Your task to perform on an android device: Open Maps and search for coffee Image 0: 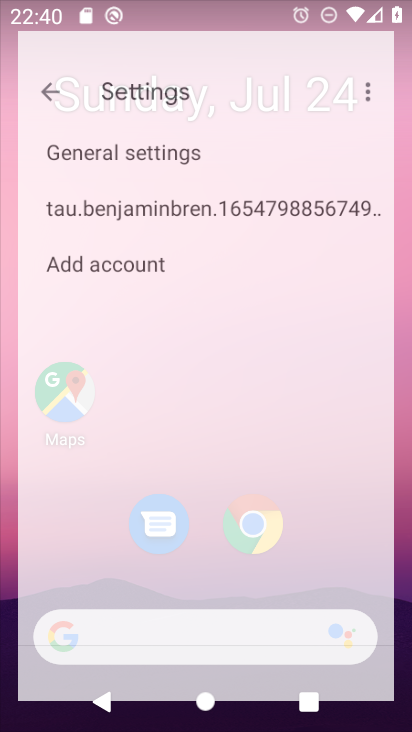
Step 0: press home button
Your task to perform on an android device: Open Maps and search for coffee Image 1: 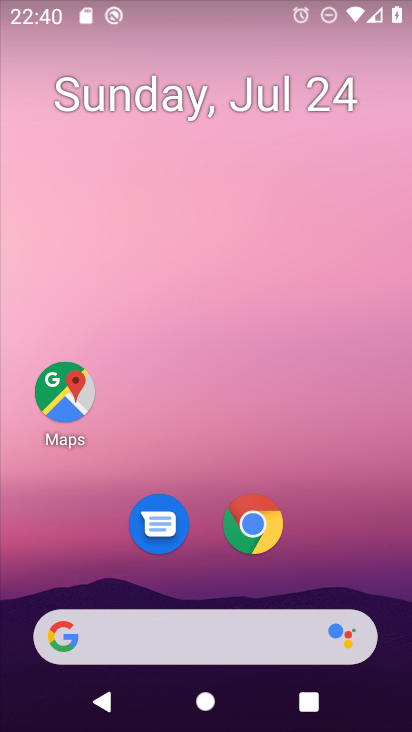
Step 1: click (66, 398)
Your task to perform on an android device: Open Maps and search for coffee Image 2: 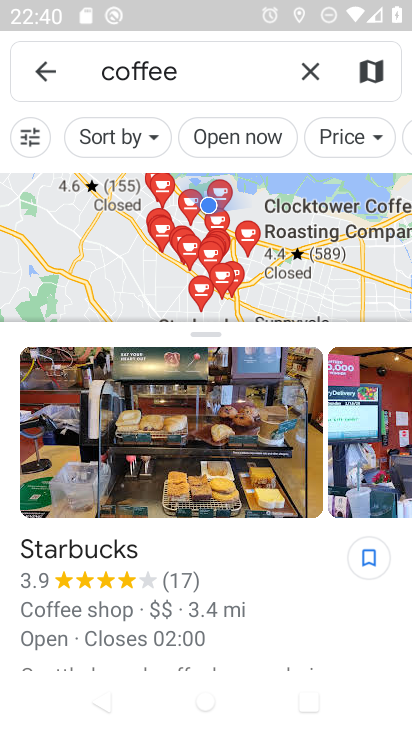
Step 2: task complete